Your task to perform on an android device: toggle show notifications on the lock screen Image 0: 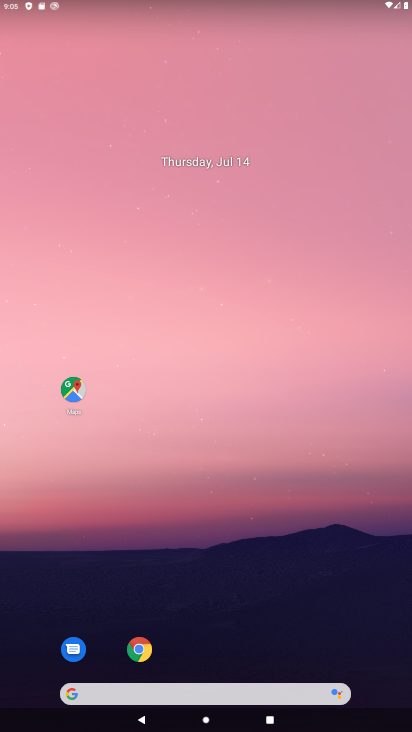
Step 0: drag from (235, 632) to (232, 191)
Your task to perform on an android device: toggle show notifications on the lock screen Image 1: 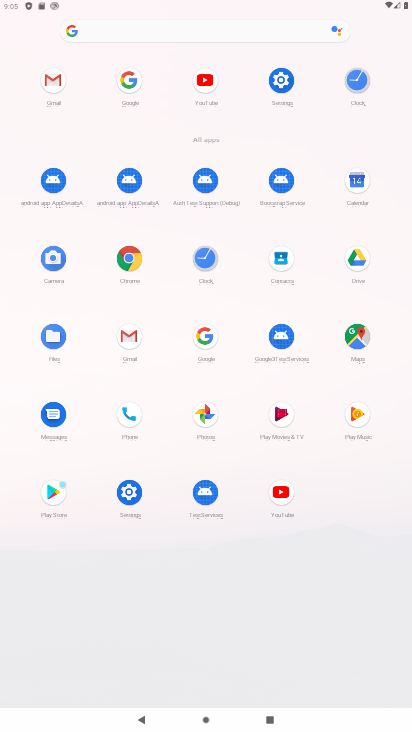
Step 1: click (295, 78)
Your task to perform on an android device: toggle show notifications on the lock screen Image 2: 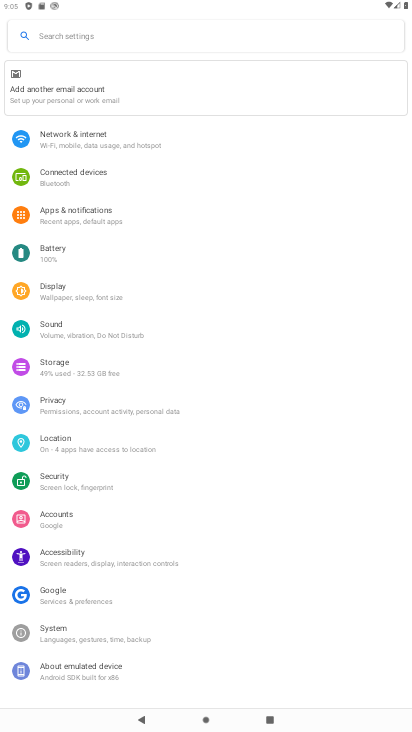
Step 2: click (80, 206)
Your task to perform on an android device: toggle show notifications on the lock screen Image 3: 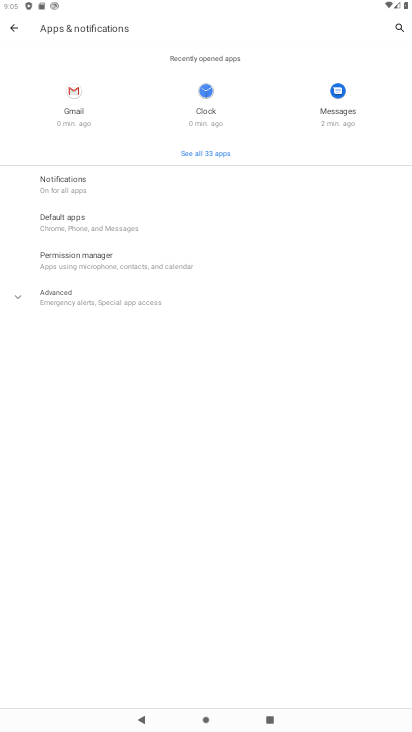
Step 3: click (66, 188)
Your task to perform on an android device: toggle show notifications on the lock screen Image 4: 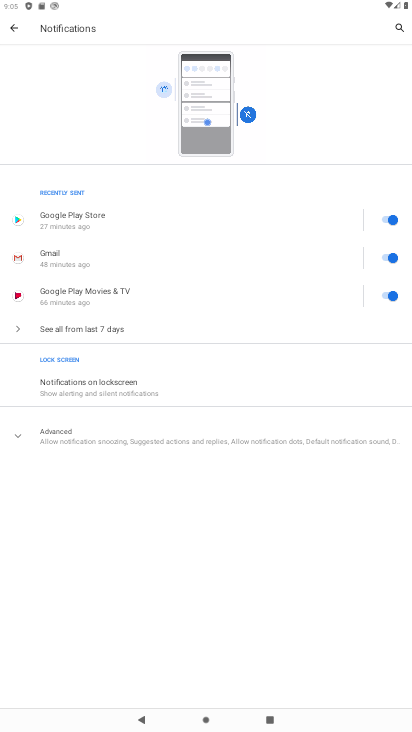
Step 4: click (149, 399)
Your task to perform on an android device: toggle show notifications on the lock screen Image 5: 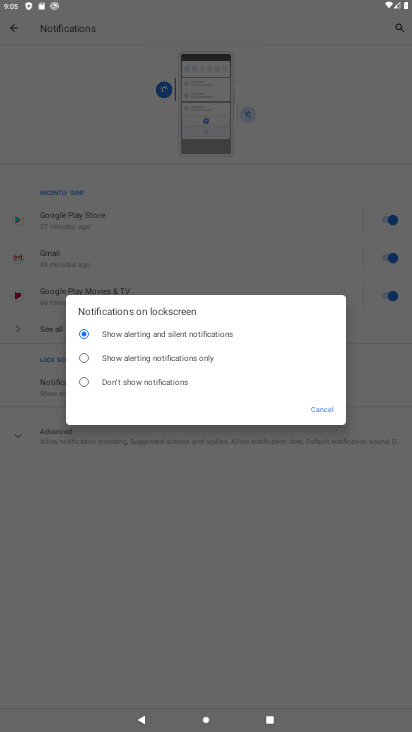
Step 5: click (168, 395)
Your task to perform on an android device: toggle show notifications on the lock screen Image 6: 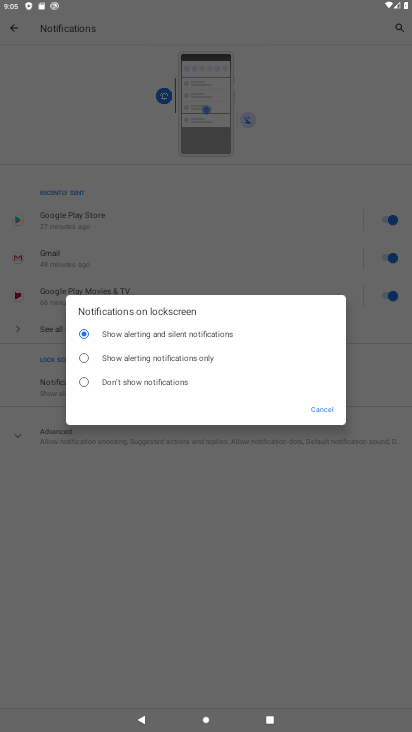
Step 6: click (126, 385)
Your task to perform on an android device: toggle show notifications on the lock screen Image 7: 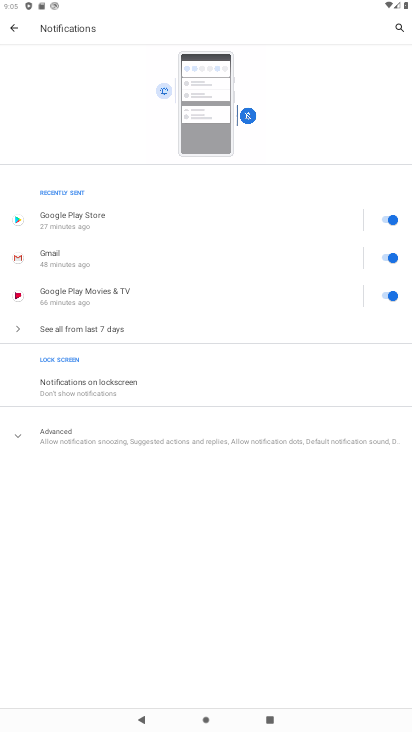
Step 7: task complete